Your task to perform on an android device: Open network settings Image 0: 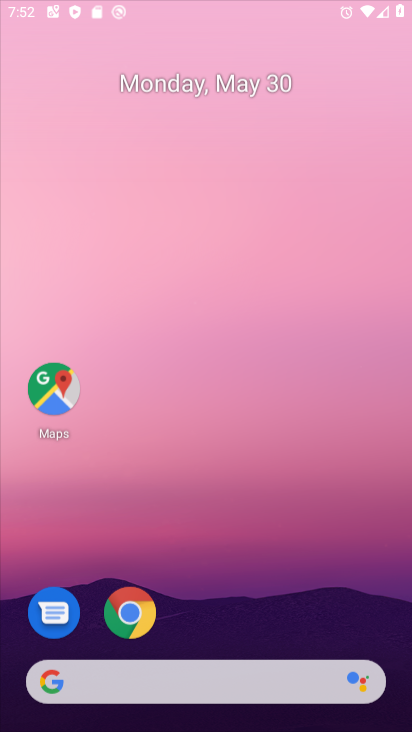
Step 0: drag from (332, 427) to (330, 110)
Your task to perform on an android device: Open network settings Image 1: 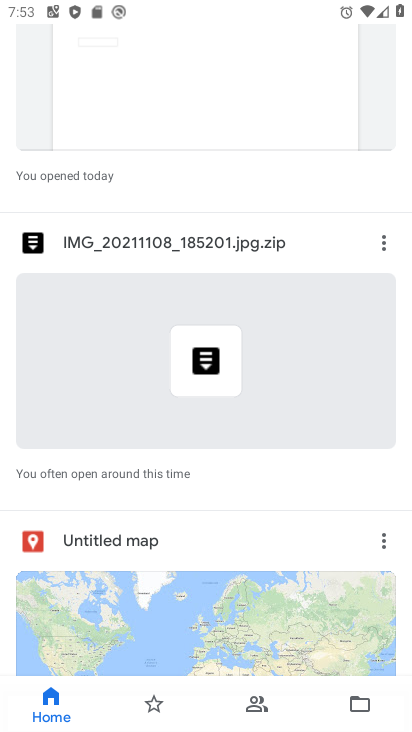
Step 1: press home button
Your task to perform on an android device: Open network settings Image 2: 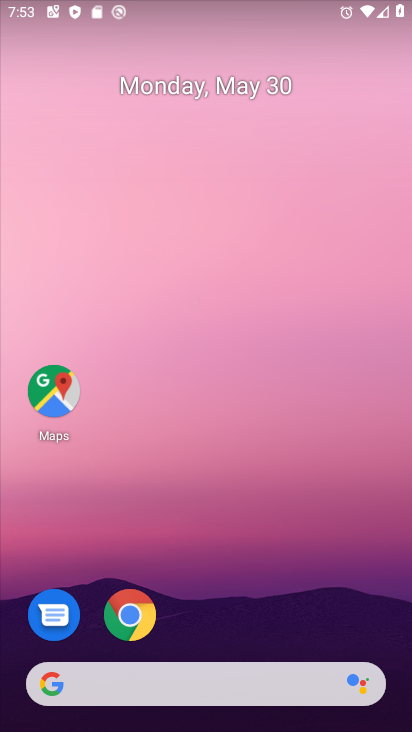
Step 2: drag from (305, 602) to (278, 127)
Your task to perform on an android device: Open network settings Image 3: 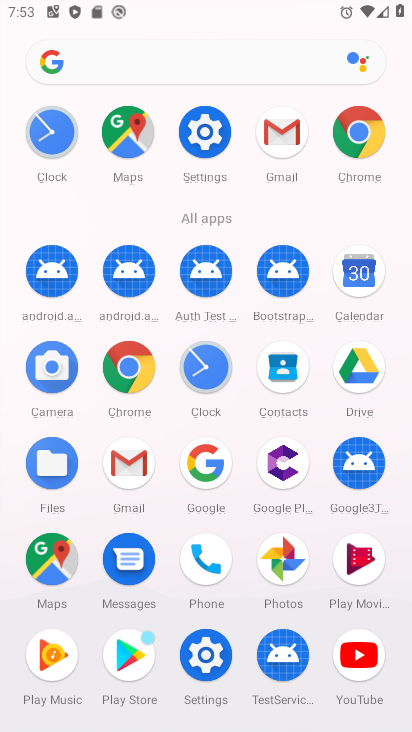
Step 3: click (210, 136)
Your task to perform on an android device: Open network settings Image 4: 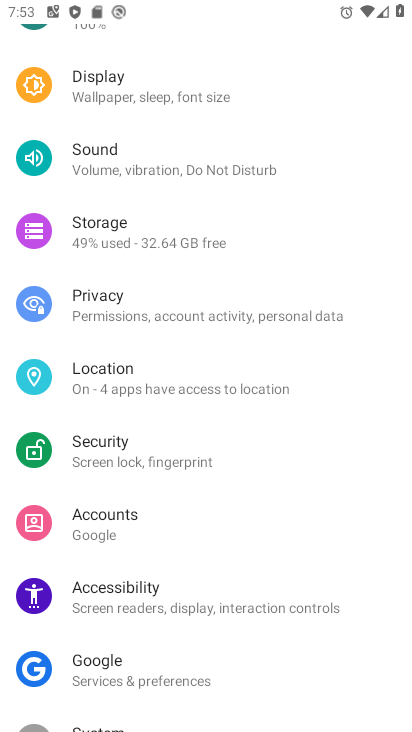
Step 4: drag from (210, 136) to (228, 522)
Your task to perform on an android device: Open network settings Image 5: 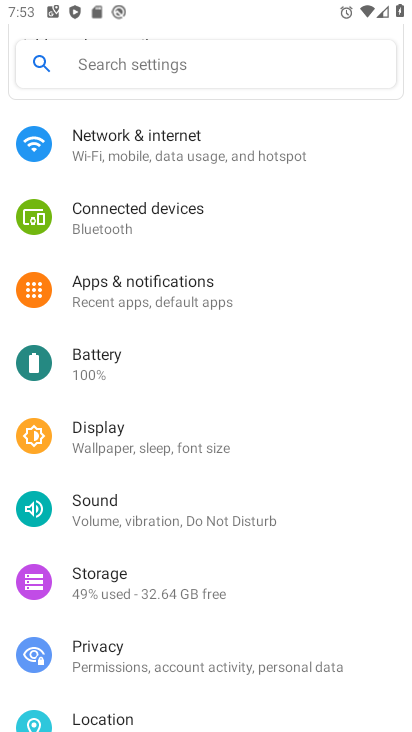
Step 5: click (129, 150)
Your task to perform on an android device: Open network settings Image 6: 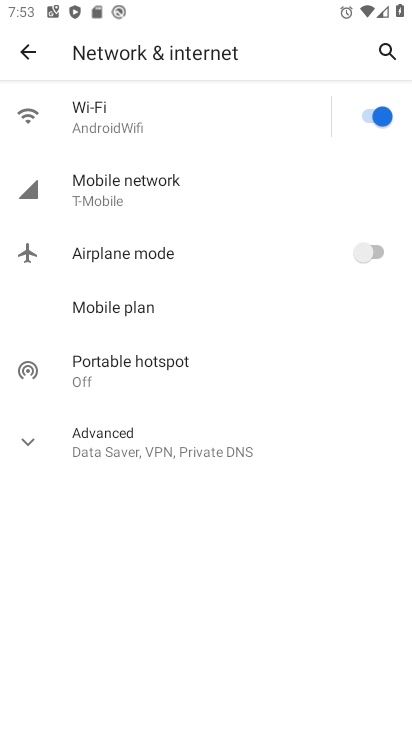
Step 6: click (129, 115)
Your task to perform on an android device: Open network settings Image 7: 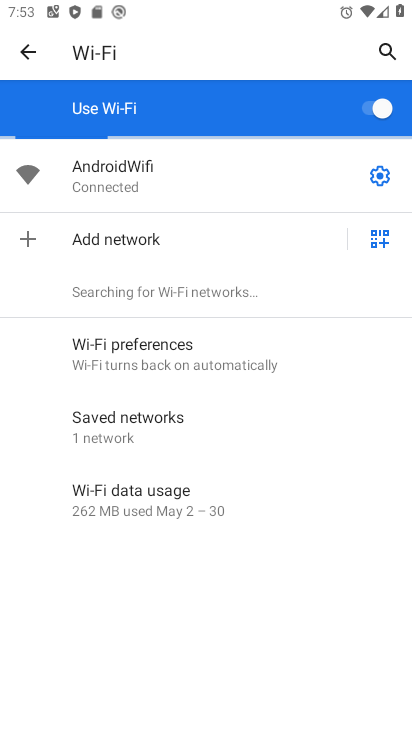
Step 7: task complete